Your task to perform on an android device: Go to Amazon Image 0: 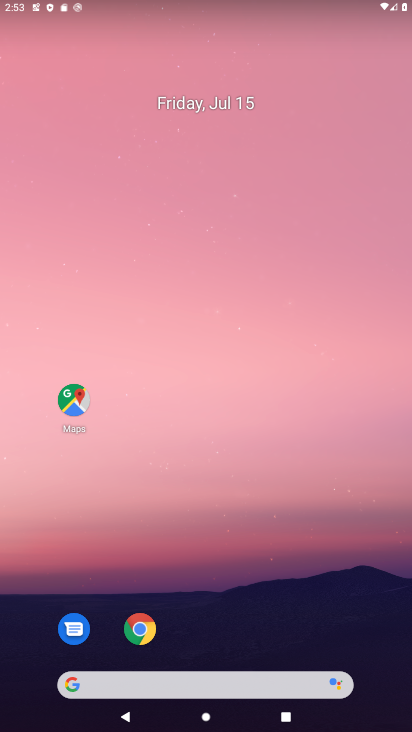
Step 0: drag from (180, 650) to (225, 197)
Your task to perform on an android device: Go to Amazon Image 1: 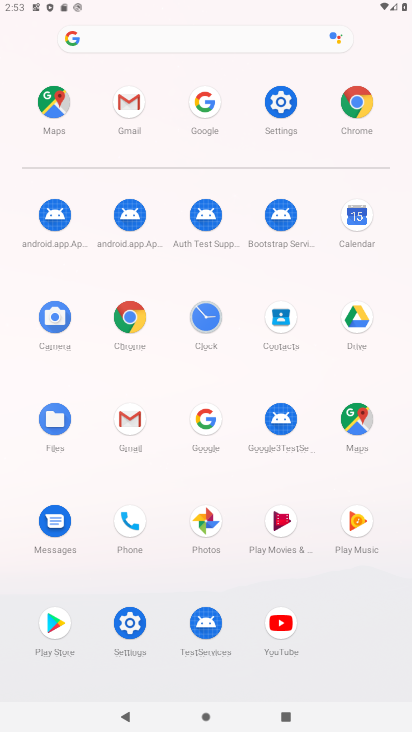
Step 1: click (141, 305)
Your task to perform on an android device: Go to Amazon Image 2: 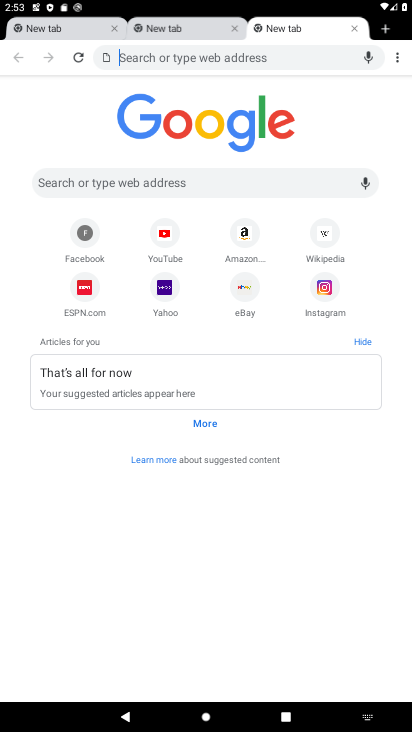
Step 2: click (243, 228)
Your task to perform on an android device: Go to Amazon Image 3: 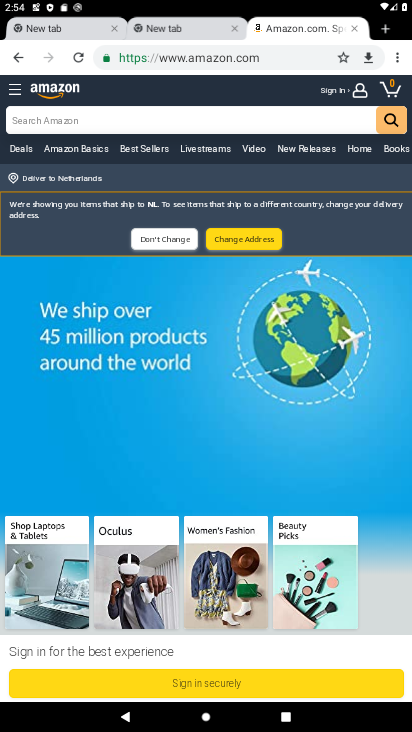
Step 3: task complete